Your task to perform on an android device: toggle data saver in the chrome app Image 0: 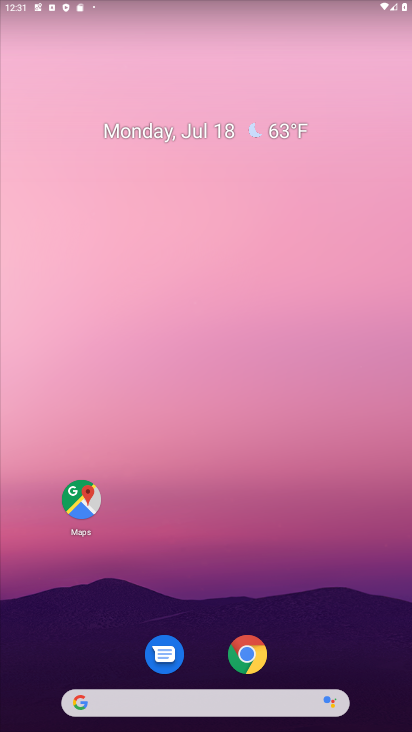
Step 0: click (241, 638)
Your task to perform on an android device: toggle data saver in the chrome app Image 1: 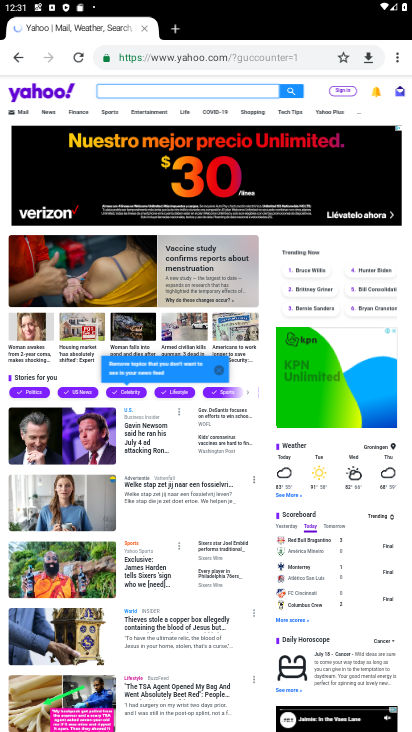
Step 1: click (399, 54)
Your task to perform on an android device: toggle data saver in the chrome app Image 2: 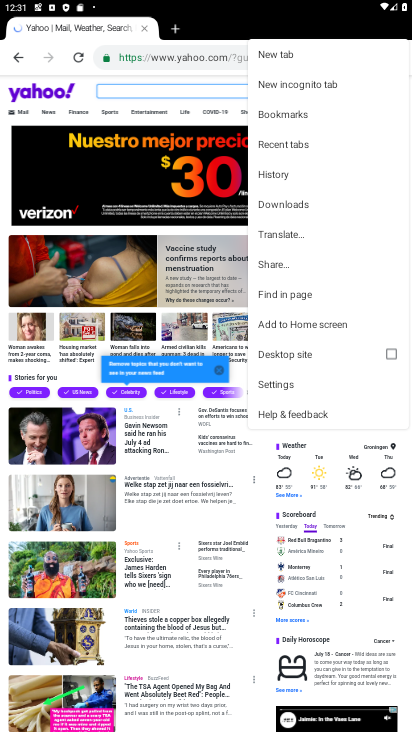
Step 2: click (316, 378)
Your task to perform on an android device: toggle data saver in the chrome app Image 3: 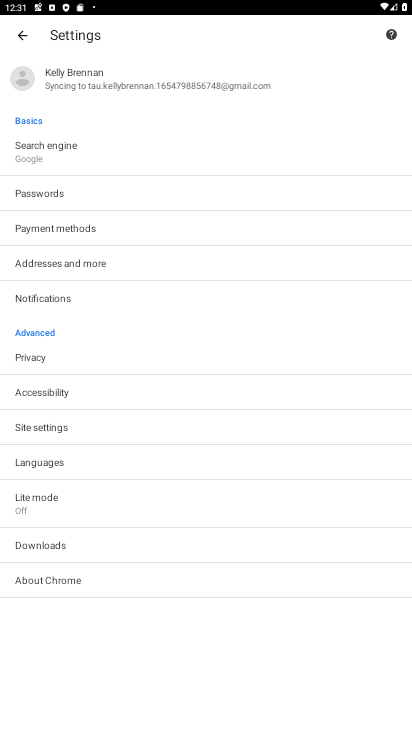
Step 3: click (99, 492)
Your task to perform on an android device: toggle data saver in the chrome app Image 4: 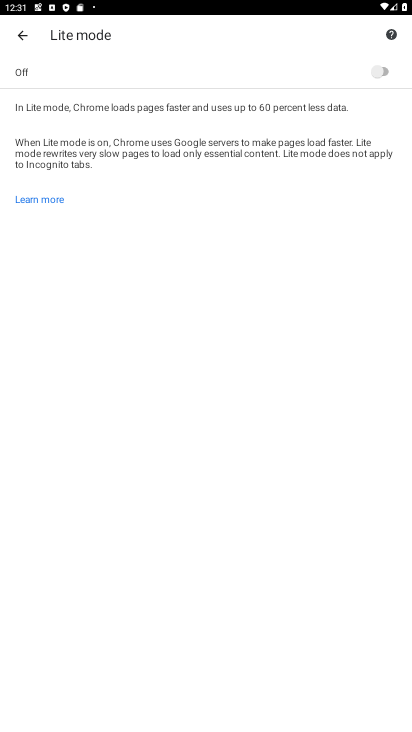
Step 4: click (398, 73)
Your task to perform on an android device: toggle data saver in the chrome app Image 5: 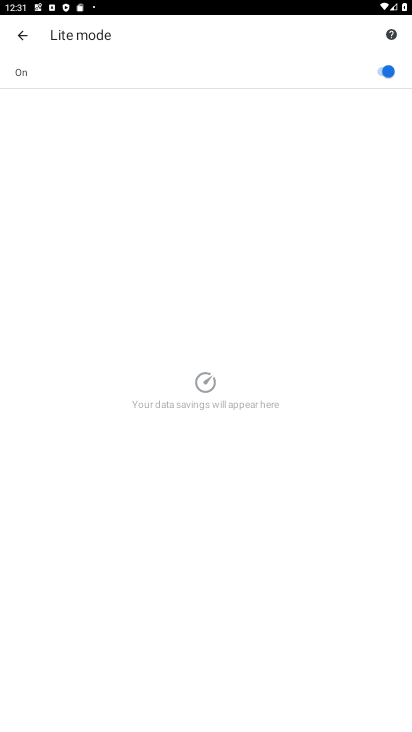
Step 5: task complete